Your task to perform on an android device: delete location history Image 0: 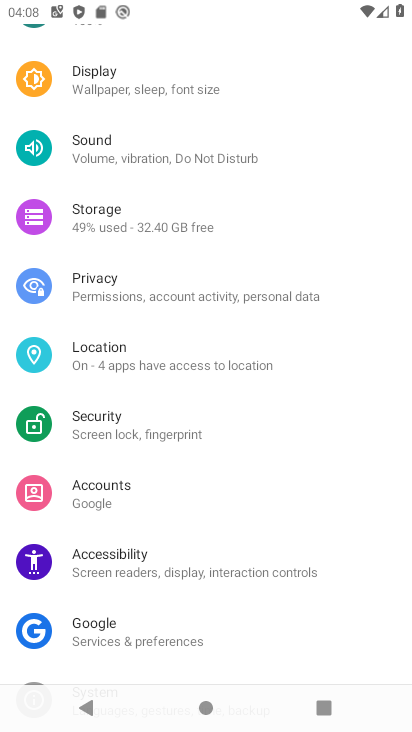
Step 0: press home button
Your task to perform on an android device: delete location history Image 1: 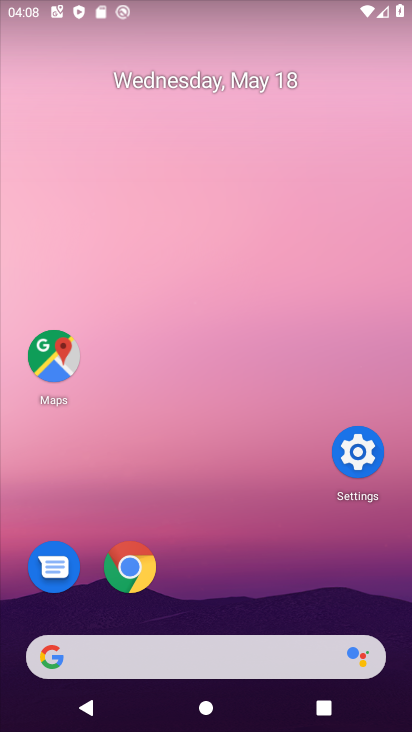
Step 1: click (46, 331)
Your task to perform on an android device: delete location history Image 2: 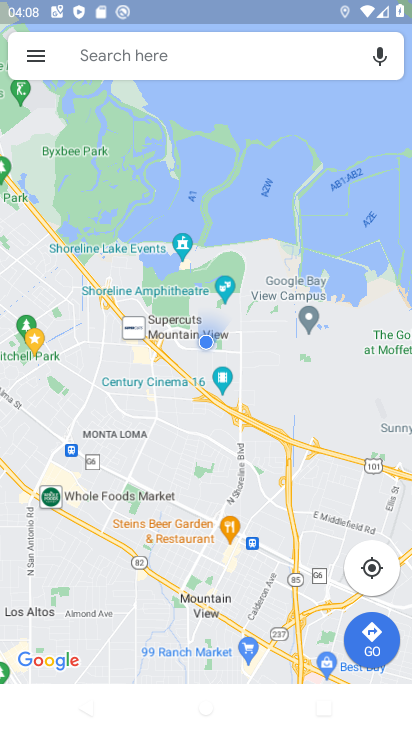
Step 2: click (33, 54)
Your task to perform on an android device: delete location history Image 3: 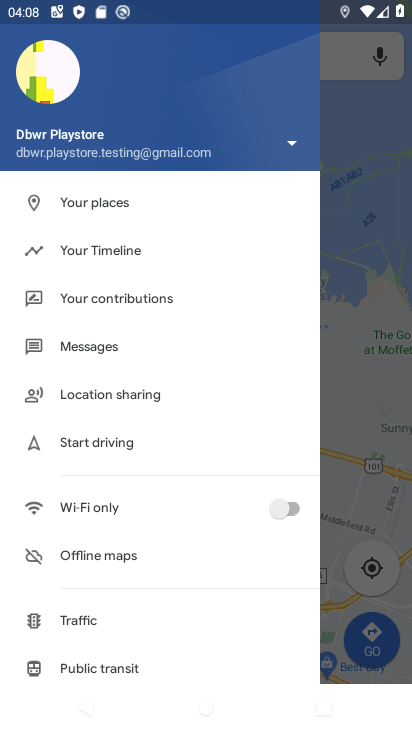
Step 3: click (124, 247)
Your task to perform on an android device: delete location history Image 4: 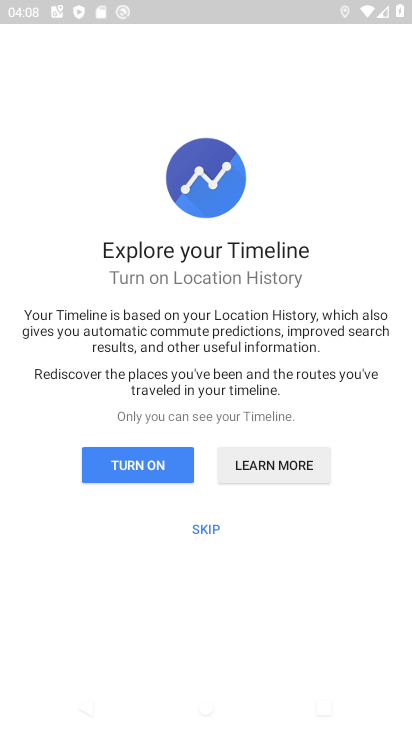
Step 4: click (133, 461)
Your task to perform on an android device: delete location history Image 5: 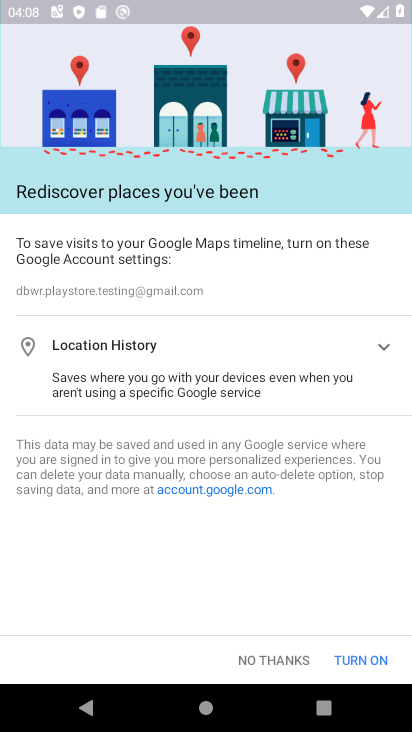
Step 5: click (277, 661)
Your task to perform on an android device: delete location history Image 6: 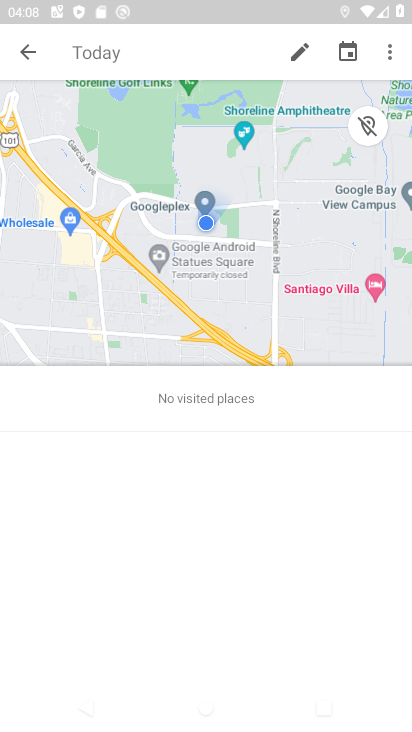
Step 6: click (390, 52)
Your task to perform on an android device: delete location history Image 7: 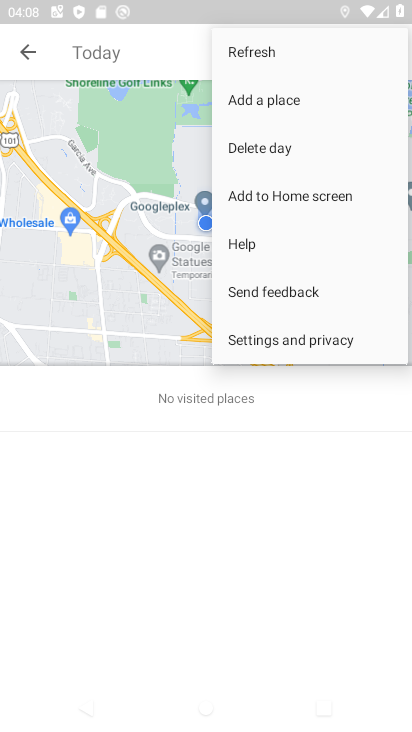
Step 7: click (313, 340)
Your task to perform on an android device: delete location history Image 8: 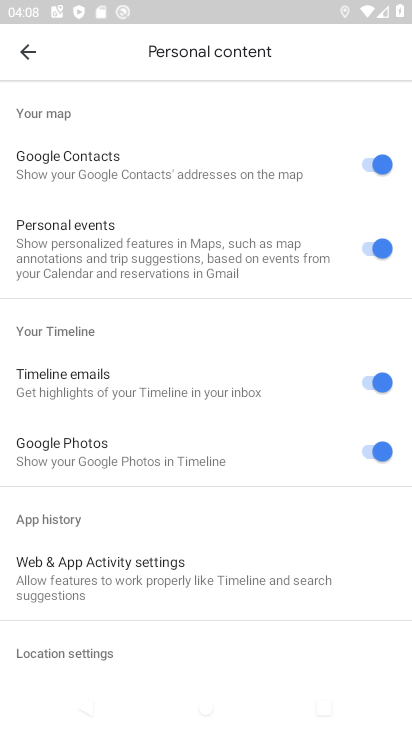
Step 8: drag from (215, 610) to (260, 127)
Your task to perform on an android device: delete location history Image 9: 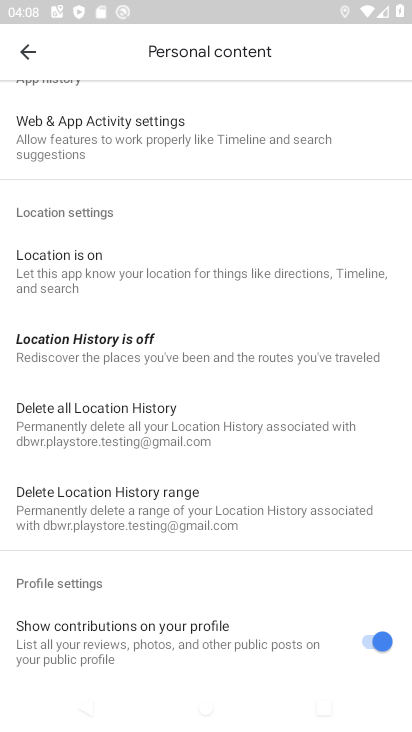
Step 9: click (54, 411)
Your task to perform on an android device: delete location history Image 10: 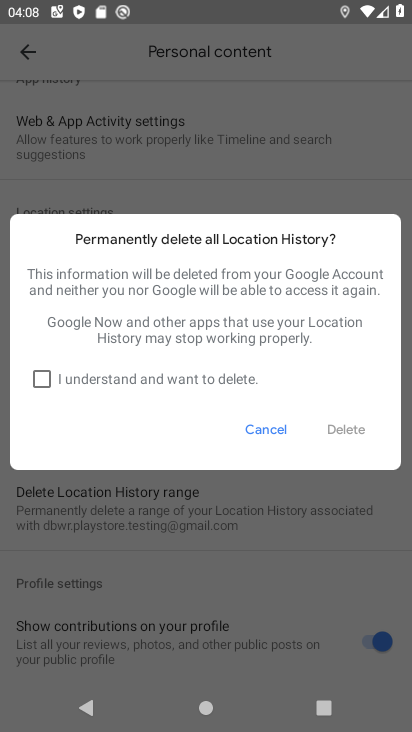
Step 10: click (32, 372)
Your task to perform on an android device: delete location history Image 11: 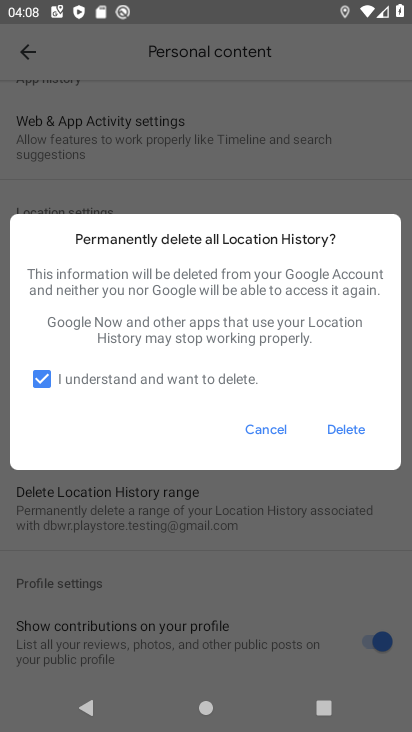
Step 11: click (347, 426)
Your task to perform on an android device: delete location history Image 12: 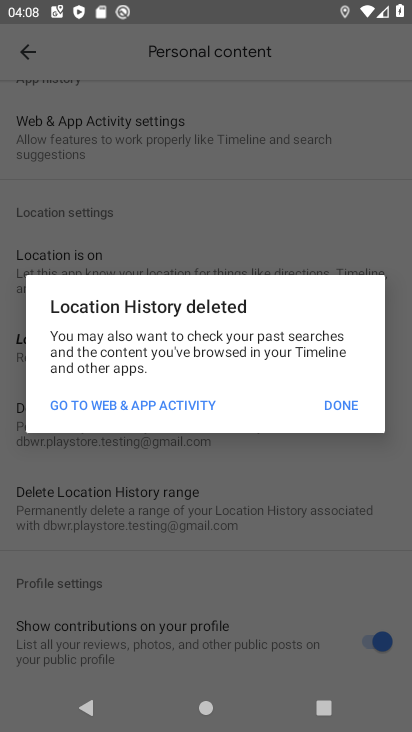
Step 12: click (350, 408)
Your task to perform on an android device: delete location history Image 13: 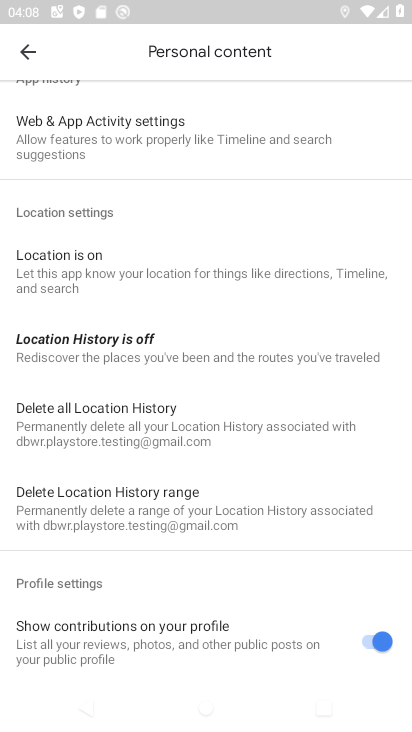
Step 13: task complete